Your task to perform on an android device: turn on location history Image 0: 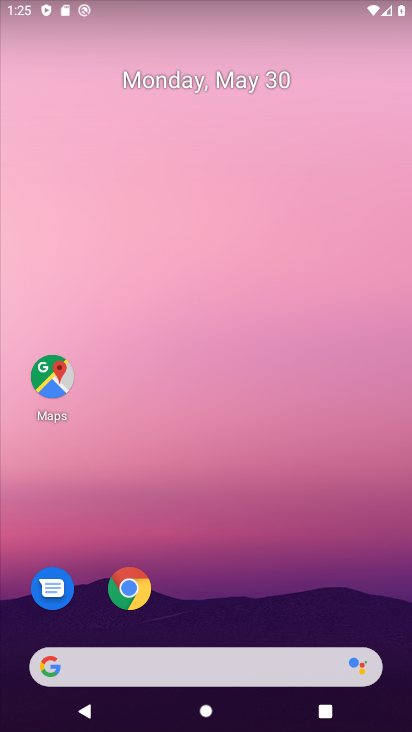
Step 0: drag from (296, 456) to (236, 1)
Your task to perform on an android device: turn on location history Image 1: 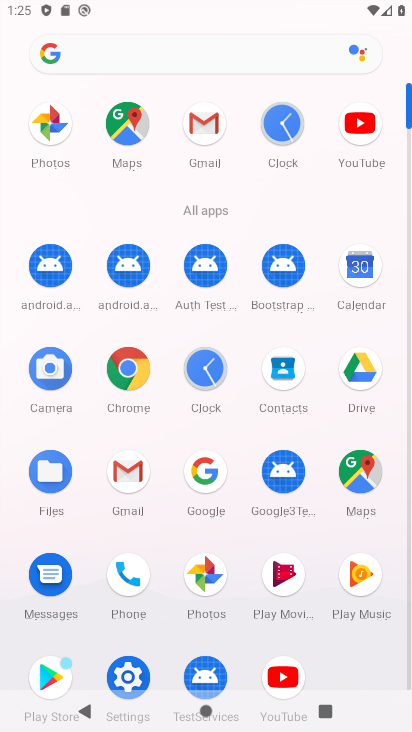
Step 1: click (126, 677)
Your task to perform on an android device: turn on location history Image 2: 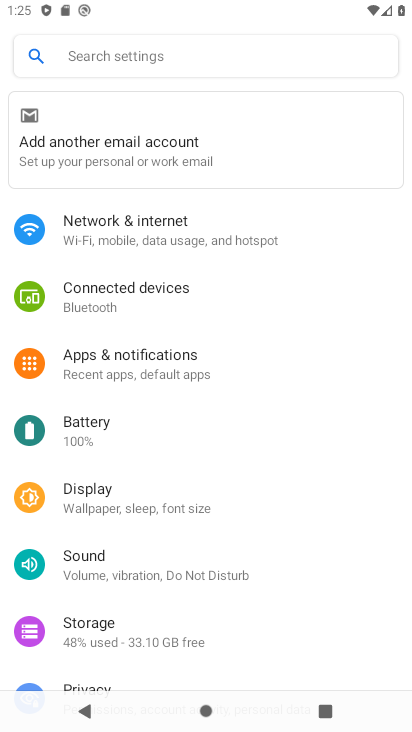
Step 2: drag from (202, 639) to (240, 127)
Your task to perform on an android device: turn on location history Image 3: 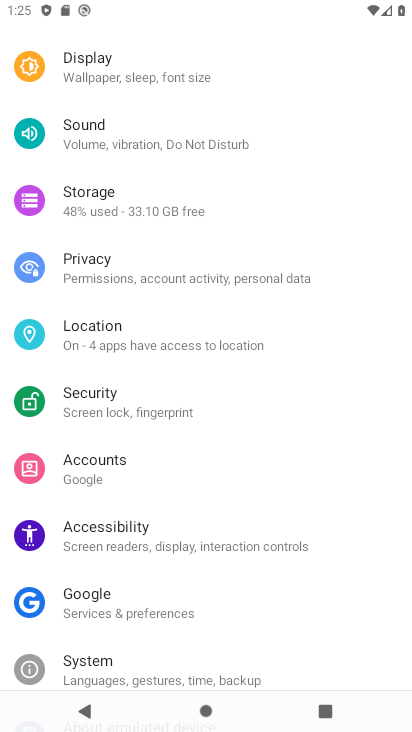
Step 3: click (150, 328)
Your task to perform on an android device: turn on location history Image 4: 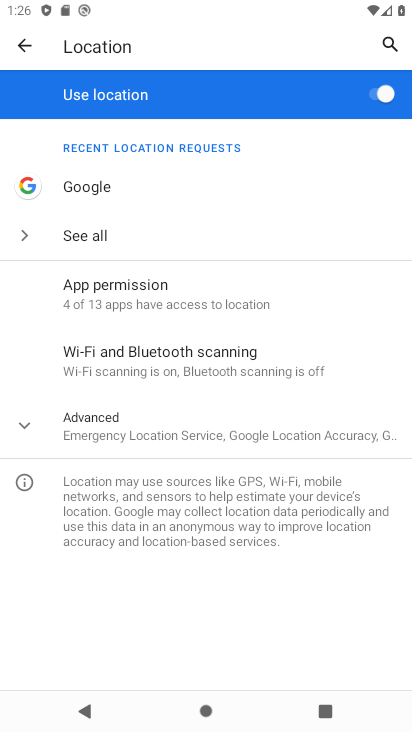
Step 4: click (113, 418)
Your task to perform on an android device: turn on location history Image 5: 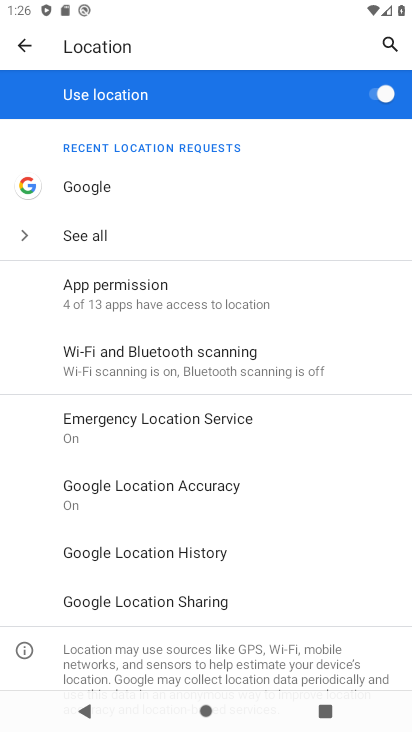
Step 5: click (188, 545)
Your task to perform on an android device: turn on location history Image 6: 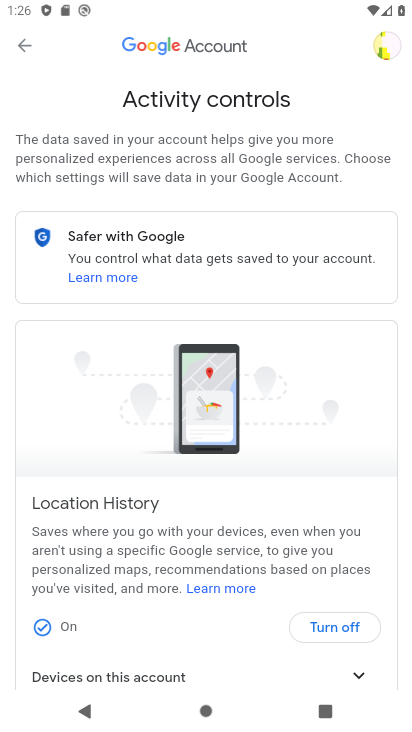
Step 6: task complete